Your task to perform on an android device: turn off airplane mode Image 0: 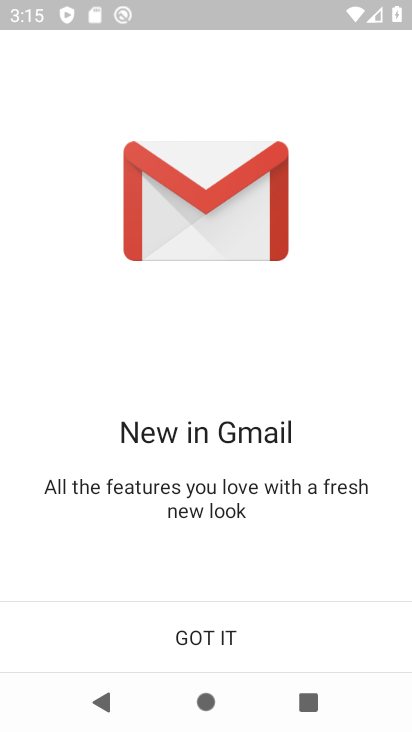
Step 0: press home button
Your task to perform on an android device: turn off airplane mode Image 1: 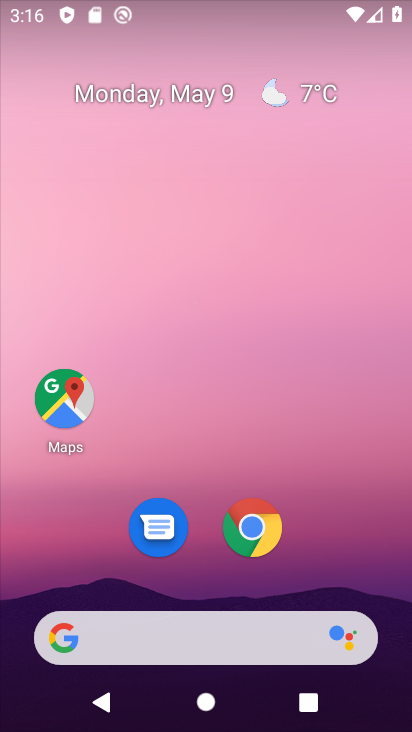
Step 1: drag from (360, 533) to (223, 101)
Your task to perform on an android device: turn off airplane mode Image 2: 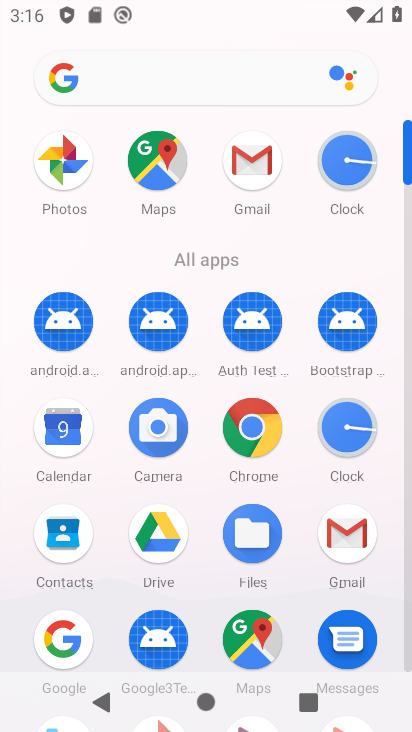
Step 2: click (409, 662)
Your task to perform on an android device: turn off airplane mode Image 3: 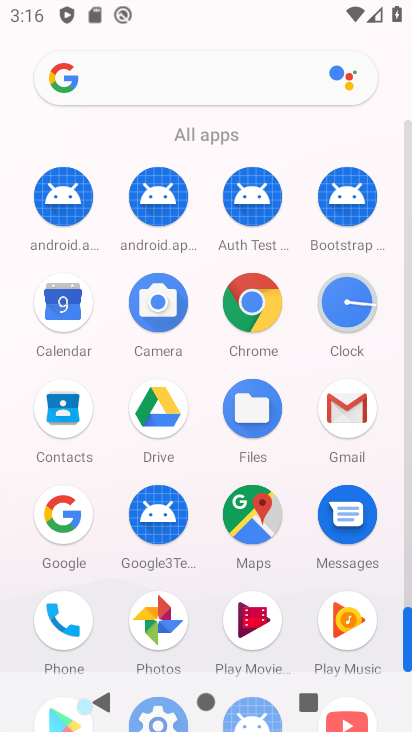
Step 3: drag from (400, 576) to (405, 359)
Your task to perform on an android device: turn off airplane mode Image 4: 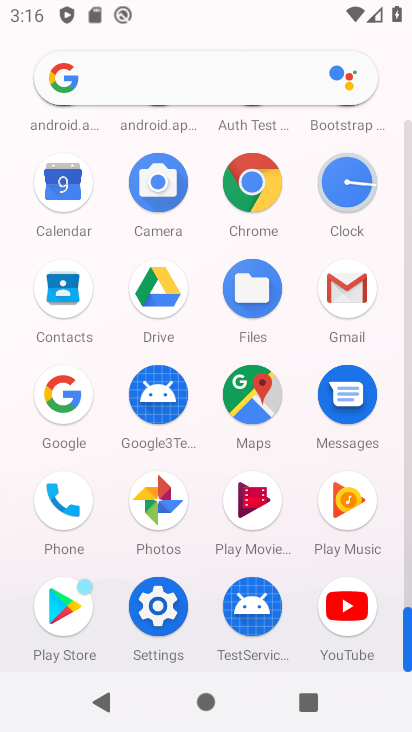
Step 4: click (172, 618)
Your task to perform on an android device: turn off airplane mode Image 5: 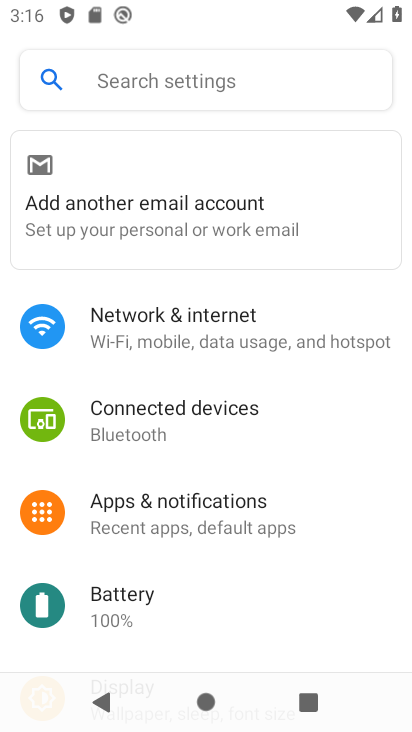
Step 5: click (238, 326)
Your task to perform on an android device: turn off airplane mode Image 6: 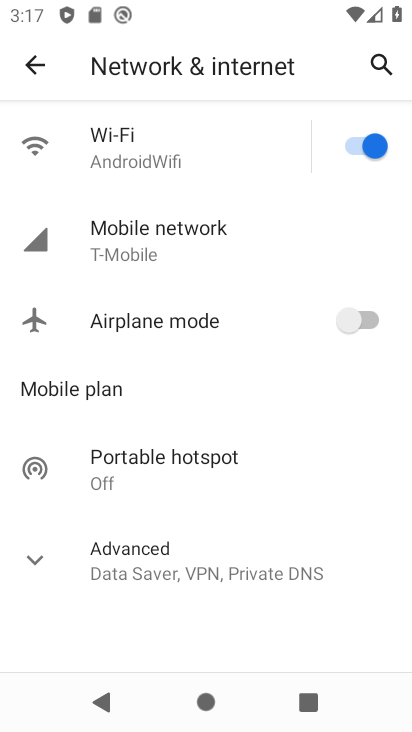
Step 6: task complete